Your task to perform on an android device: turn off airplane mode Image 0: 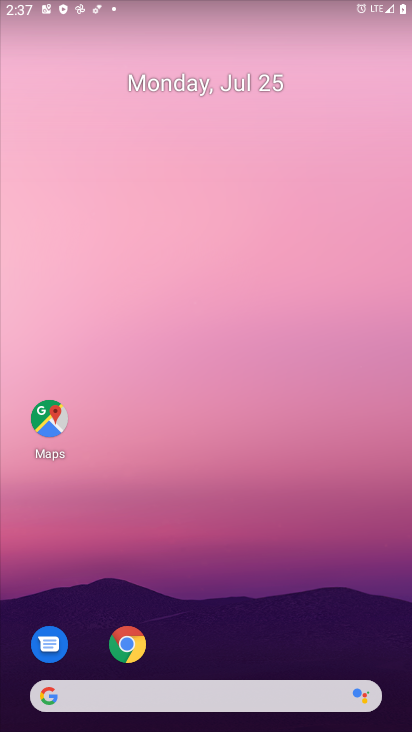
Step 0: drag from (268, 2) to (243, 627)
Your task to perform on an android device: turn off airplane mode Image 1: 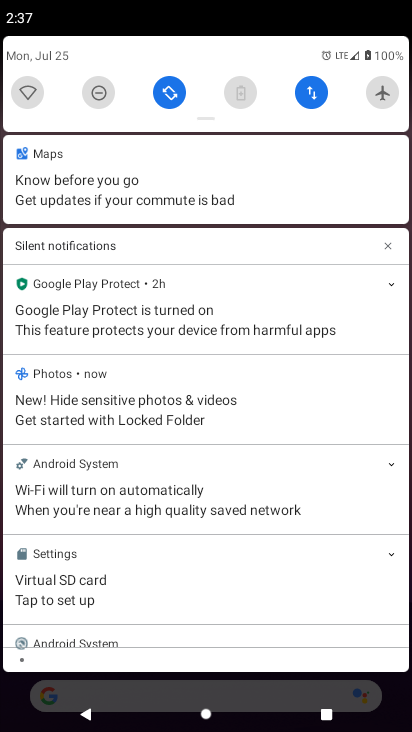
Step 1: task complete